Your task to perform on an android device: change timer sound Image 0: 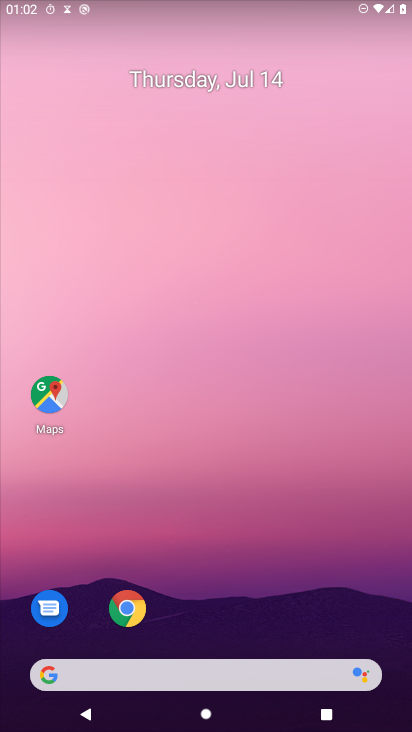
Step 0: press home button
Your task to perform on an android device: change timer sound Image 1: 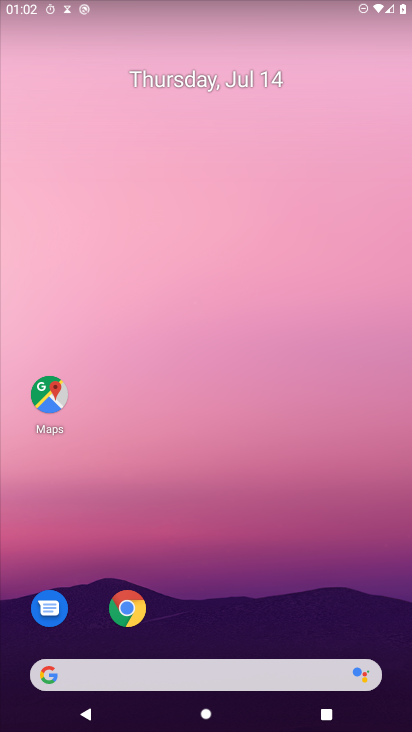
Step 1: drag from (279, 587) to (261, 43)
Your task to perform on an android device: change timer sound Image 2: 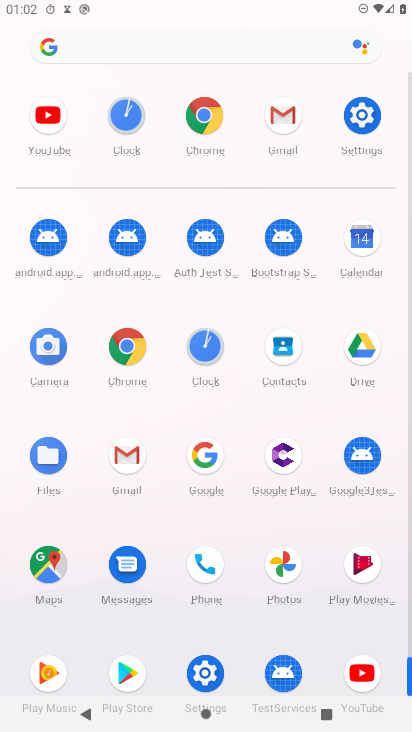
Step 2: click (208, 336)
Your task to perform on an android device: change timer sound Image 3: 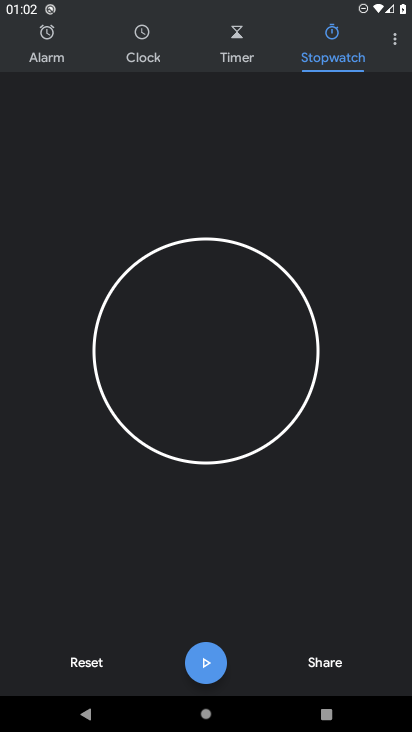
Step 3: click (386, 34)
Your task to perform on an android device: change timer sound Image 4: 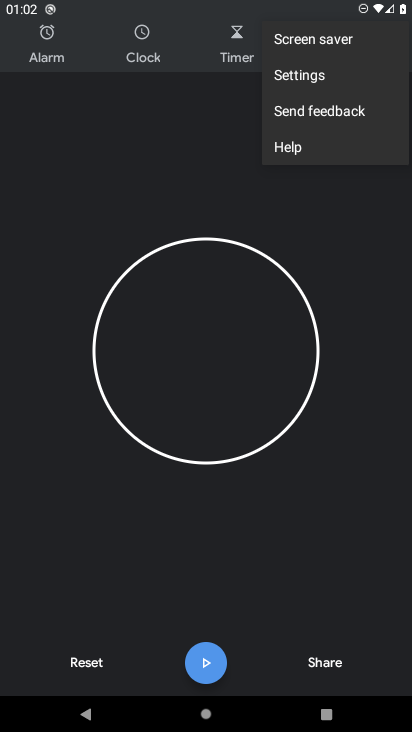
Step 4: click (309, 81)
Your task to perform on an android device: change timer sound Image 5: 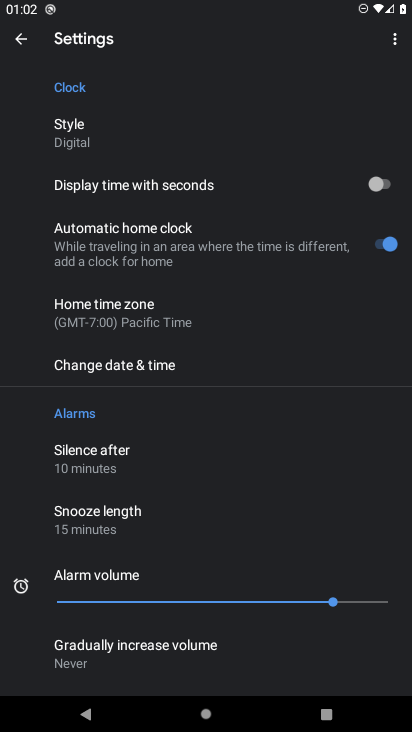
Step 5: drag from (200, 531) to (202, 161)
Your task to perform on an android device: change timer sound Image 6: 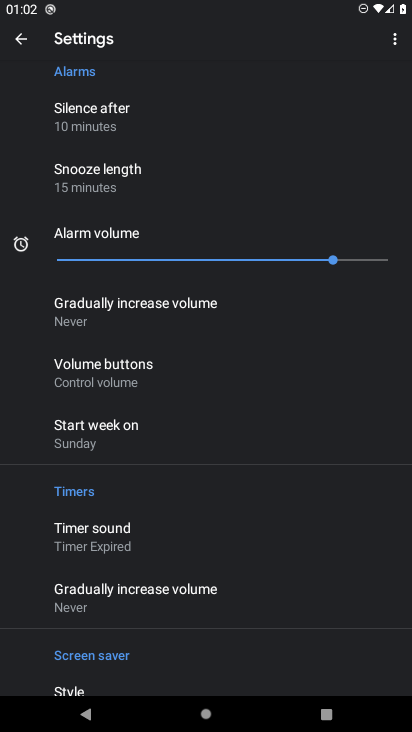
Step 6: click (80, 547)
Your task to perform on an android device: change timer sound Image 7: 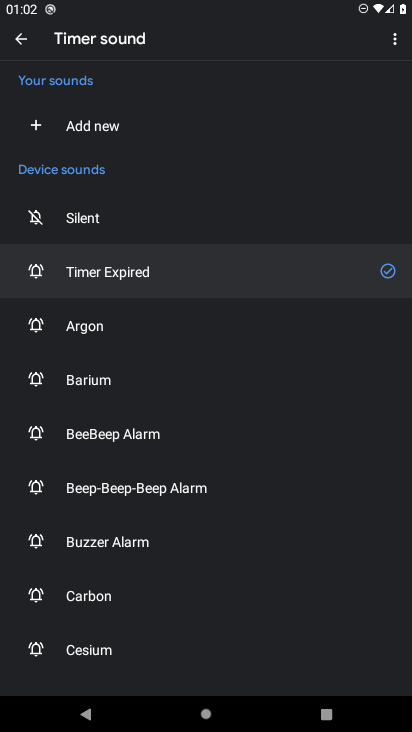
Step 7: click (79, 329)
Your task to perform on an android device: change timer sound Image 8: 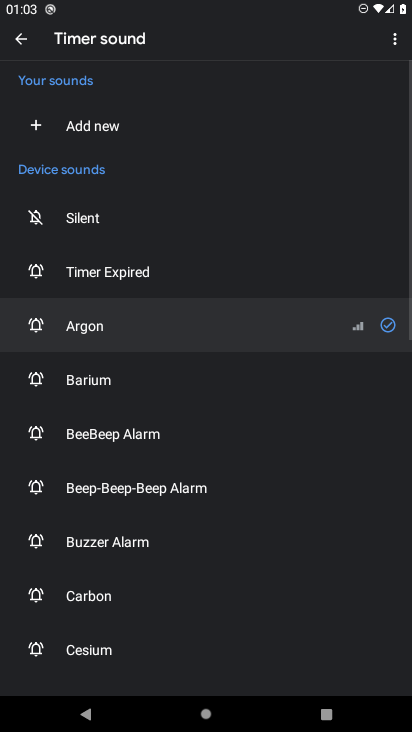
Step 8: task complete